Your task to perform on an android device: make emails show in primary in the gmail app Image 0: 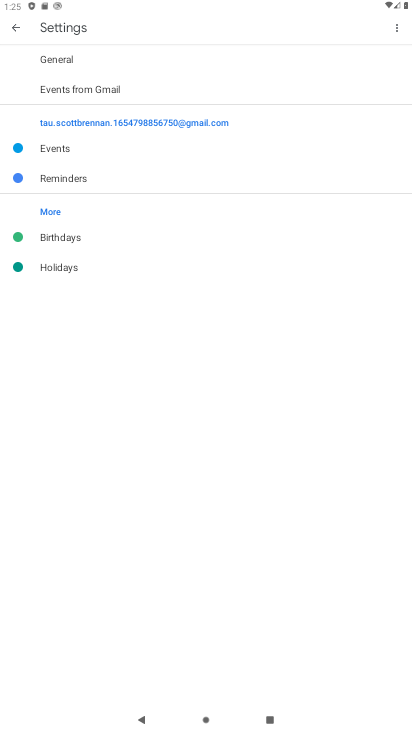
Step 0: press home button
Your task to perform on an android device: make emails show in primary in the gmail app Image 1: 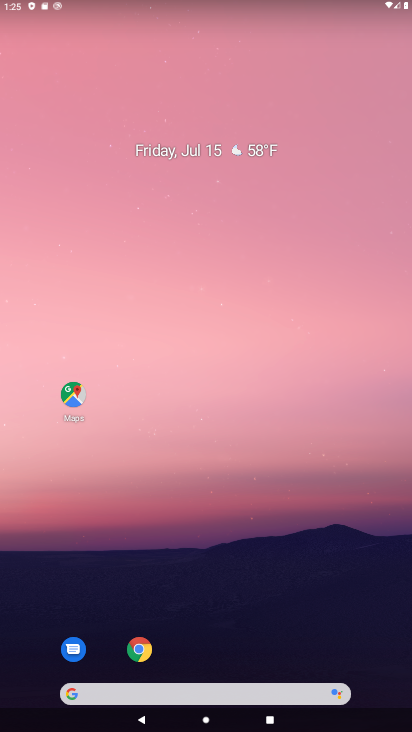
Step 1: drag from (206, 633) to (218, 33)
Your task to perform on an android device: make emails show in primary in the gmail app Image 2: 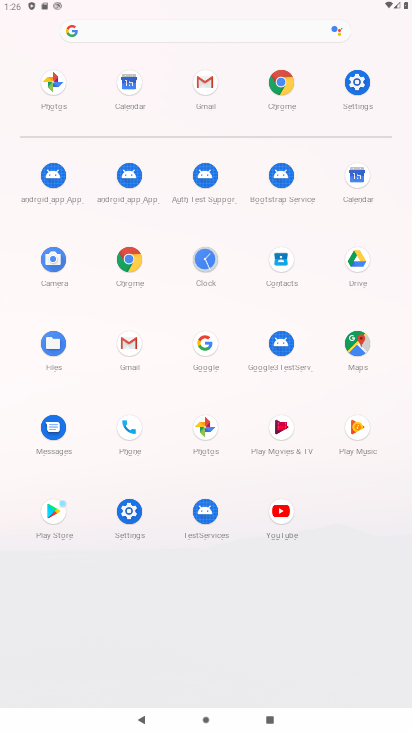
Step 2: click (137, 344)
Your task to perform on an android device: make emails show in primary in the gmail app Image 3: 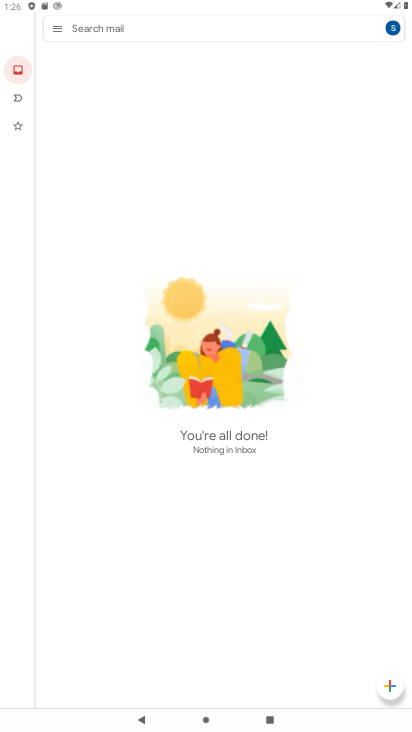
Step 3: click (50, 26)
Your task to perform on an android device: make emails show in primary in the gmail app Image 4: 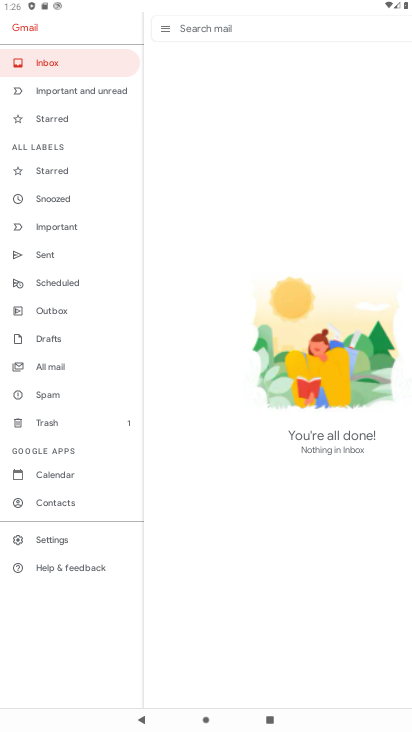
Step 4: click (67, 533)
Your task to perform on an android device: make emails show in primary in the gmail app Image 5: 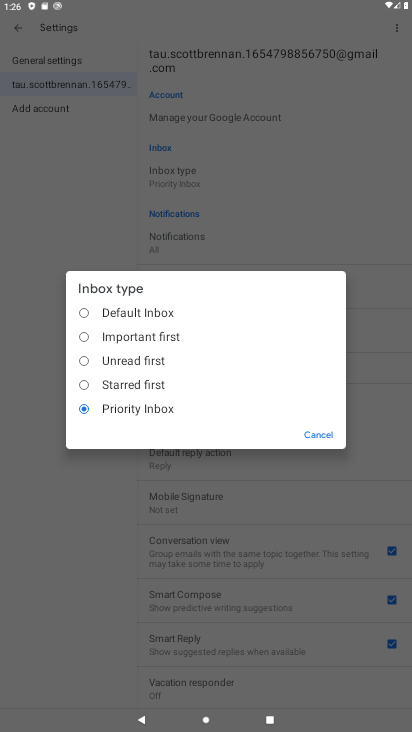
Step 5: click (84, 310)
Your task to perform on an android device: make emails show in primary in the gmail app Image 6: 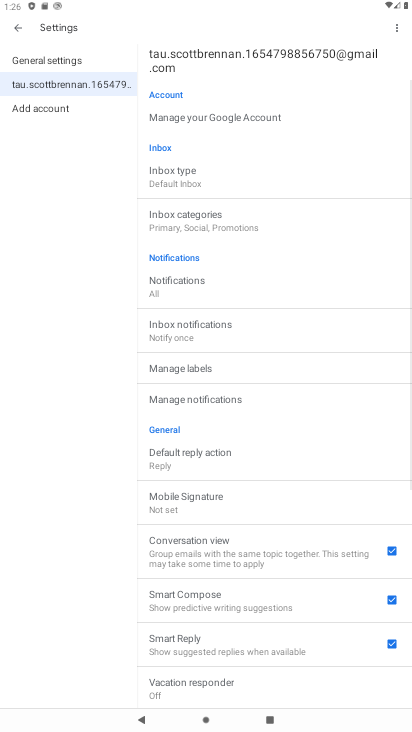
Step 6: task complete